Your task to perform on an android device: toggle notifications settings in the gmail app Image 0: 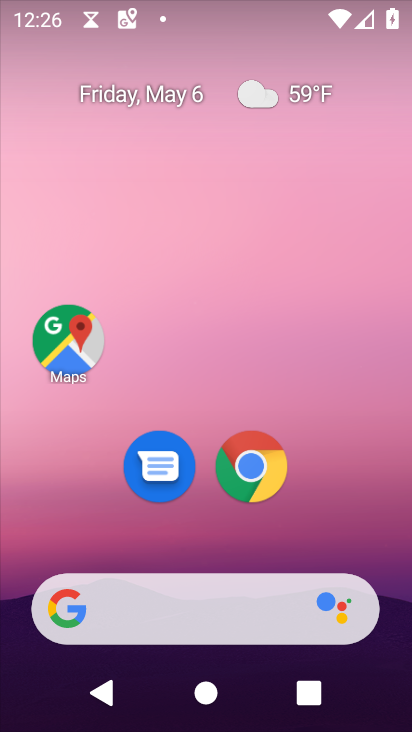
Step 0: drag from (384, 488) to (346, 39)
Your task to perform on an android device: toggle notifications settings in the gmail app Image 1: 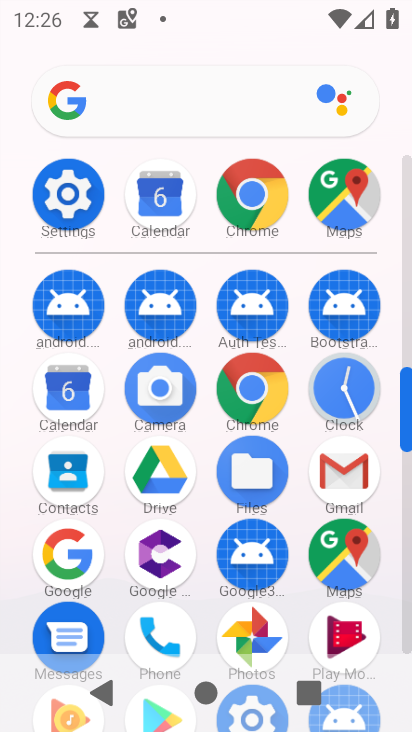
Step 1: click (335, 484)
Your task to perform on an android device: toggle notifications settings in the gmail app Image 2: 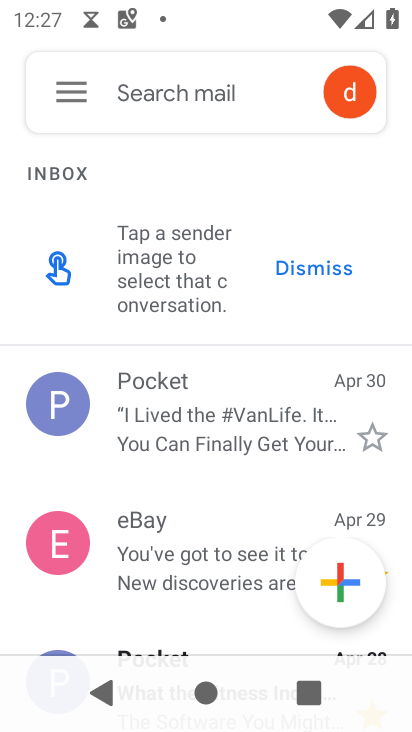
Step 2: click (67, 107)
Your task to perform on an android device: toggle notifications settings in the gmail app Image 3: 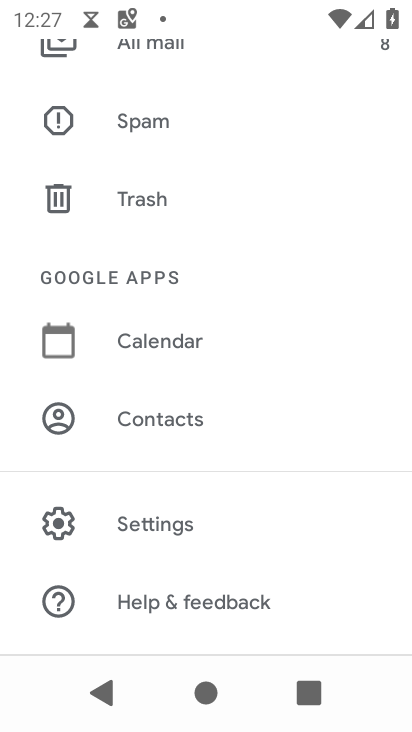
Step 3: click (183, 520)
Your task to perform on an android device: toggle notifications settings in the gmail app Image 4: 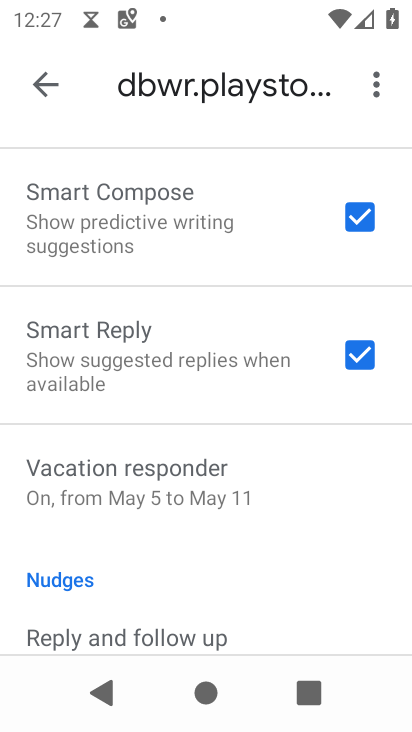
Step 4: drag from (222, 200) to (221, 659)
Your task to perform on an android device: toggle notifications settings in the gmail app Image 5: 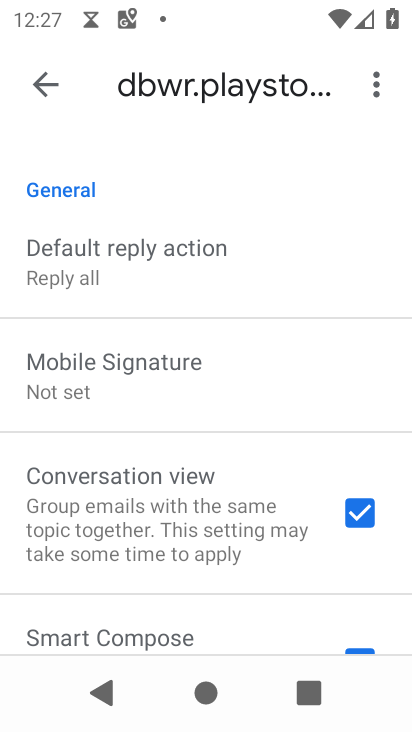
Step 5: drag from (247, 263) to (242, 508)
Your task to perform on an android device: toggle notifications settings in the gmail app Image 6: 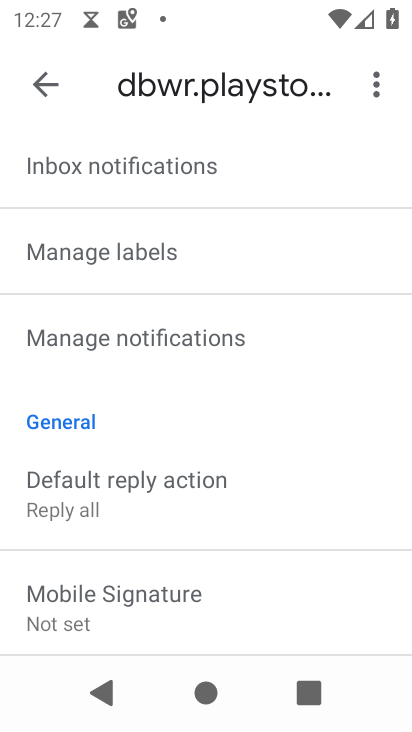
Step 6: click (215, 338)
Your task to perform on an android device: toggle notifications settings in the gmail app Image 7: 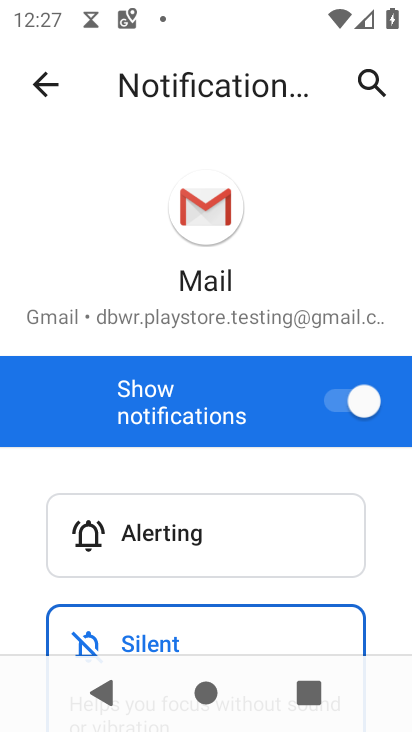
Step 7: drag from (401, 588) to (347, 248)
Your task to perform on an android device: toggle notifications settings in the gmail app Image 8: 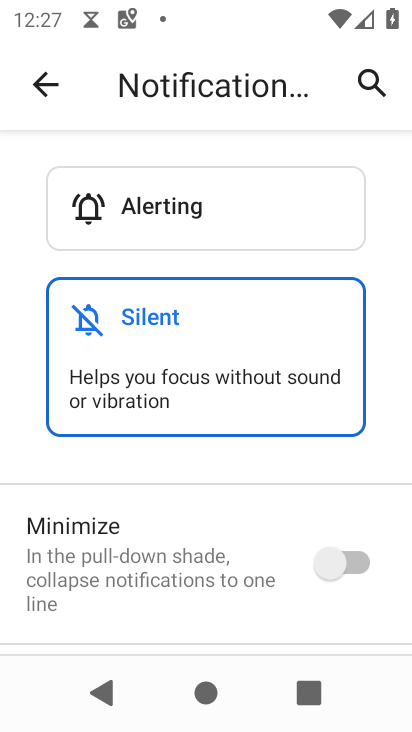
Step 8: click (319, 222)
Your task to perform on an android device: toggle notifications settings in the gmail app Image 9: 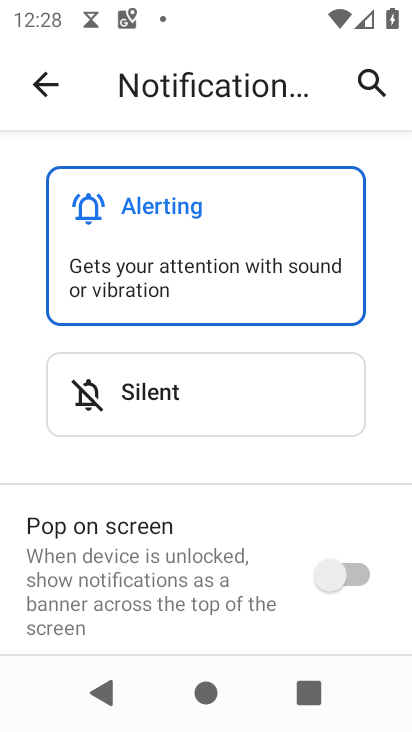
Step 9: click (359, 576)
Your task to perform on an android device: toggle notifications settings in the gmail app Image 10: 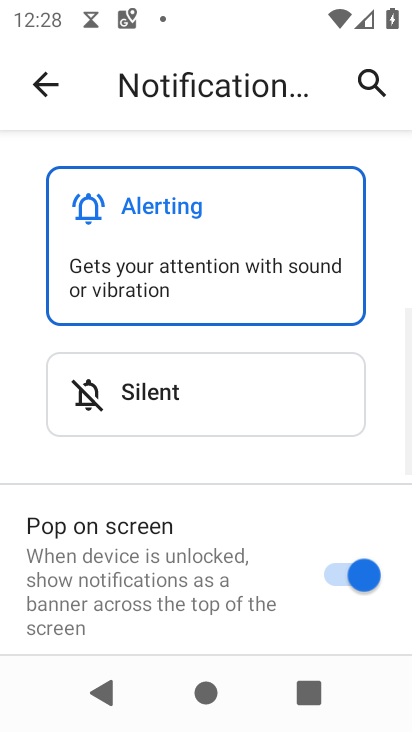
Step 10: task complete